Your task to perform on an android device: allow cookies in the chrome app Image 0: 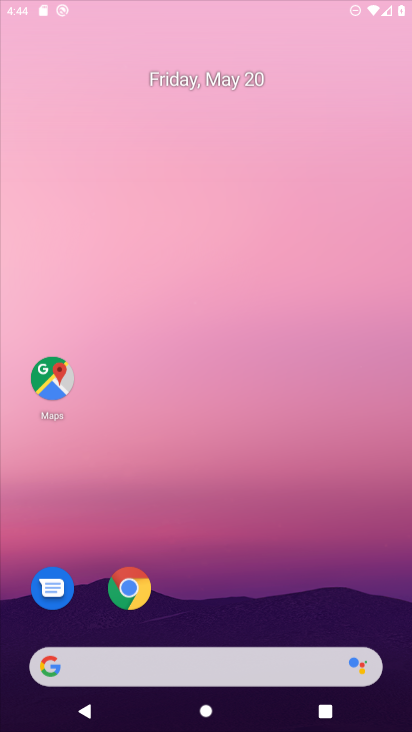
Step 0: press home button
Your task to perform on an android device: allow cookies in the chrome app Image 1: 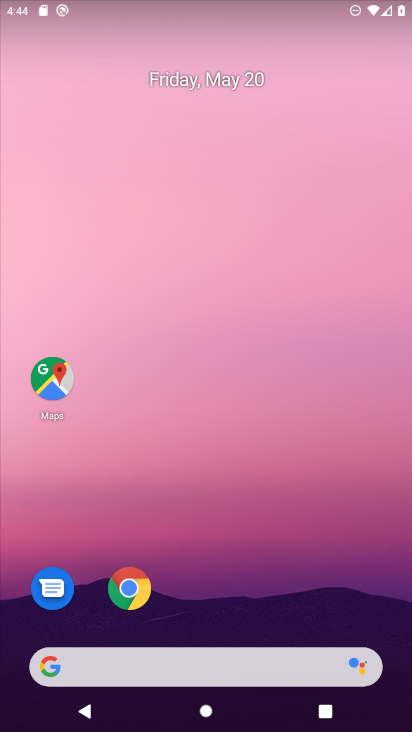
Step 1: drag from (237, 572) to (275, 368)
Your task to perform on an android device: allow cookies in the chrome app Image 2: 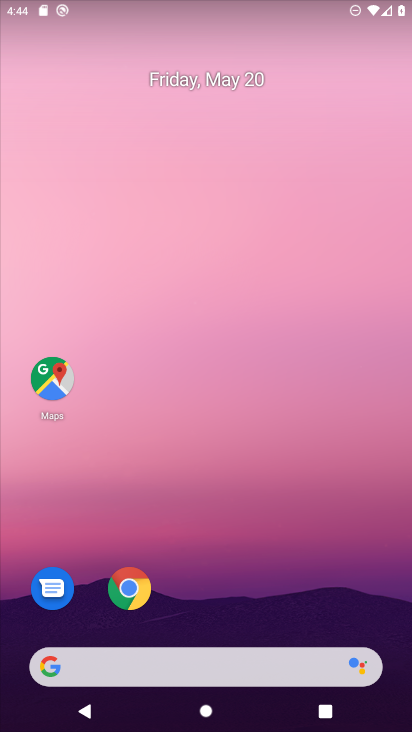
Step 2: click (136, 599)
Your task to perform on an android device: allow cookies in the chrome app Image 3: 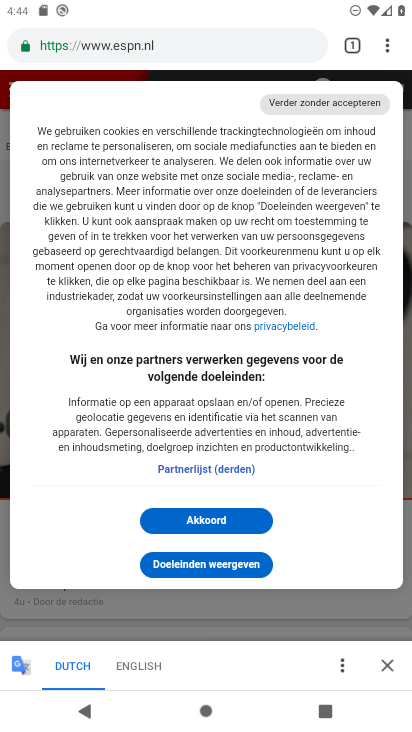
Step 3: click (393, 52)
Your task to perform on an android device: allow cookies in the chrome app Image 4: 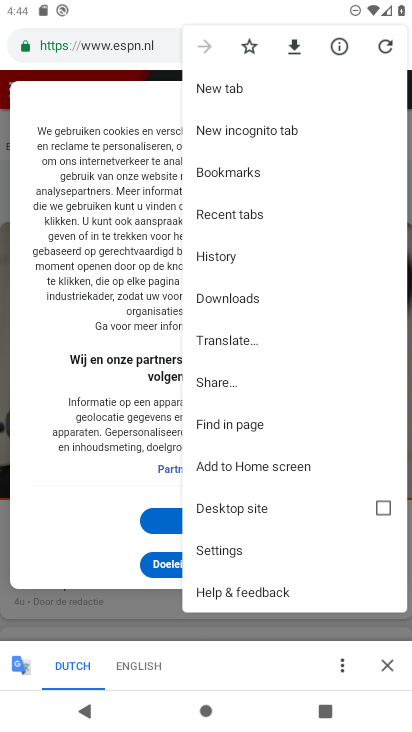
Step 4: click (217, 551)
Your task to perform on an android device: allow cookies in the chrome app Image 5: 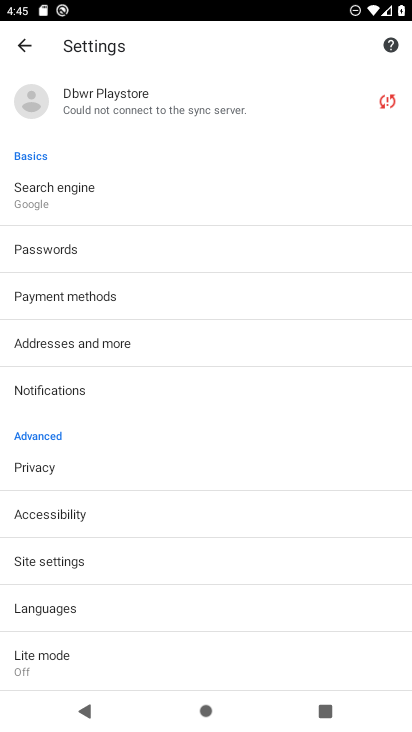
Step 5: click (53, 554)
Your task to perform on an android device: allow cookies in the chrome app Image 6: 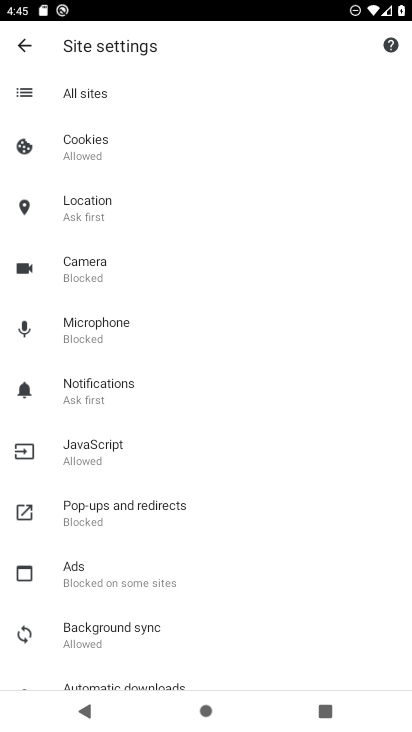
Step 6: click (91, 163)
Your task to perform on an android device: allow cookies in the chrome app Image 7: 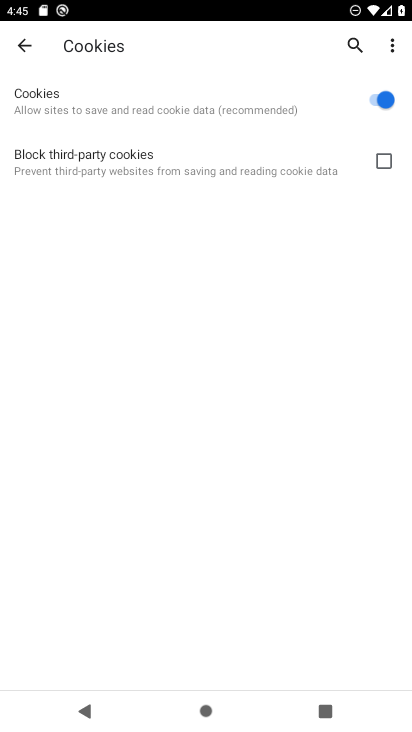
Step 7: task complete